Your task to perform on an android device: Open notification settings Image 0: 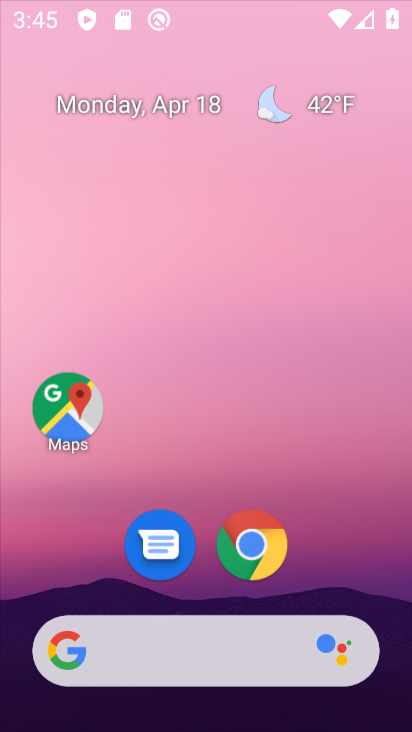
Step 0: press home button
Your task to perform on an android device: Open notification settings Image 1: 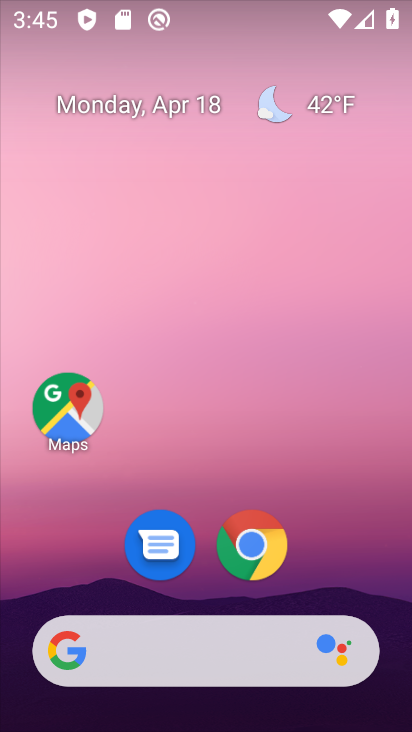
Step 1: drag from (333, 512) to (333, 81)
Your task to perform on an android device: Open notification settings Image 2: 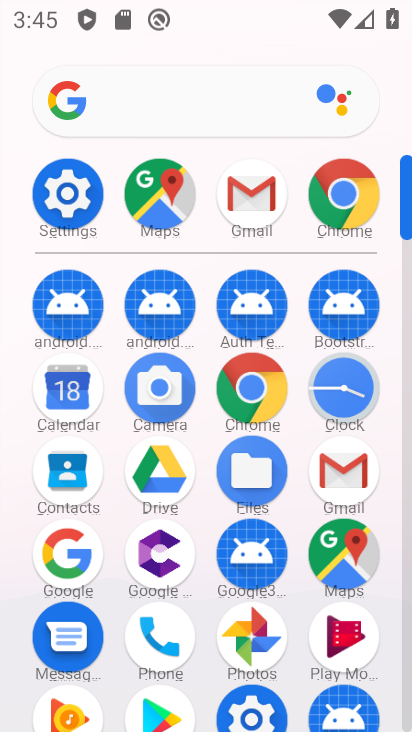
Step 2: click (73, 196)
Your task to perform on an android device: Open notification settings Image 3: 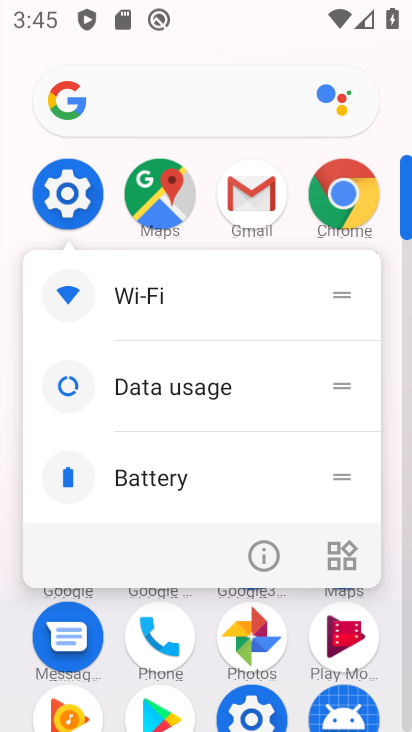
Step 3: click (72, 192)
Your task to perform on an android device: Open notification settings Image 4: 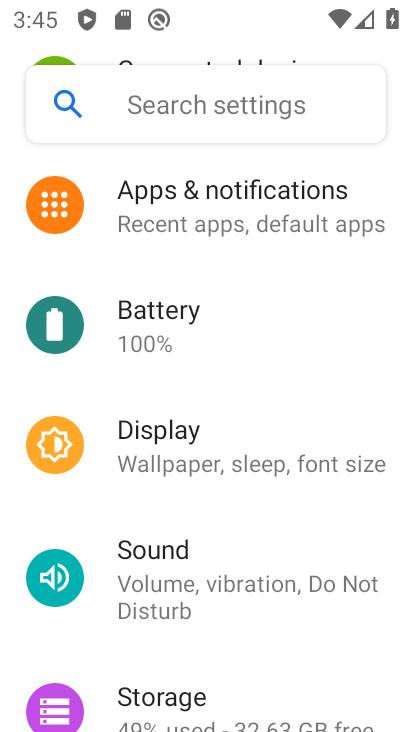
Step 4: click (254, 194)
Your task to perform on an android device: Open notification settings Image 5: 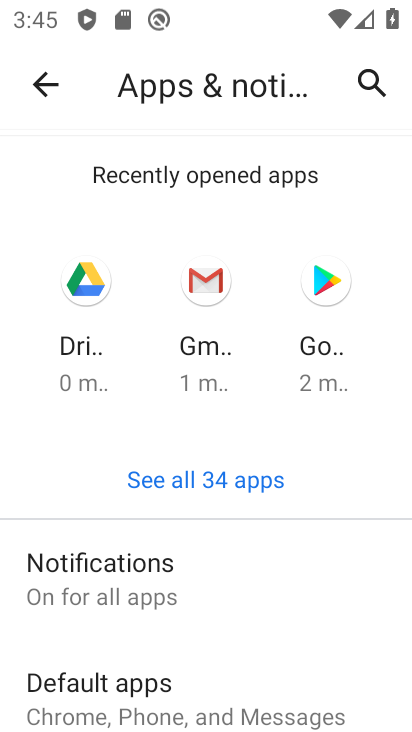
Step 5: click (103, 582)
Your task to perform on an android device: Open notification settings Image 6: 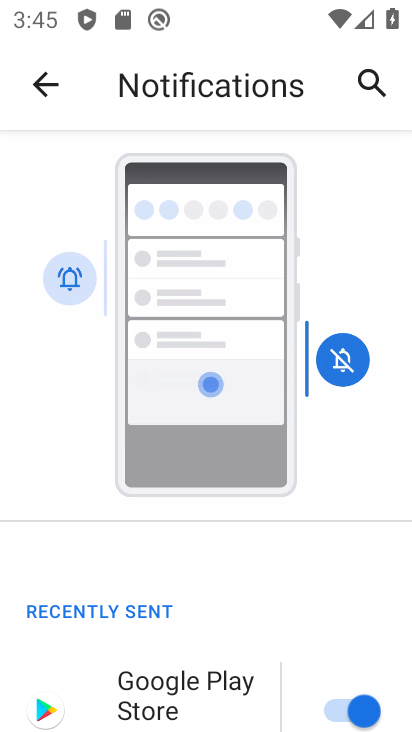
Step 6: task complete